Your task to perform on an android device: Show me the alarms in the clock app Image 0: 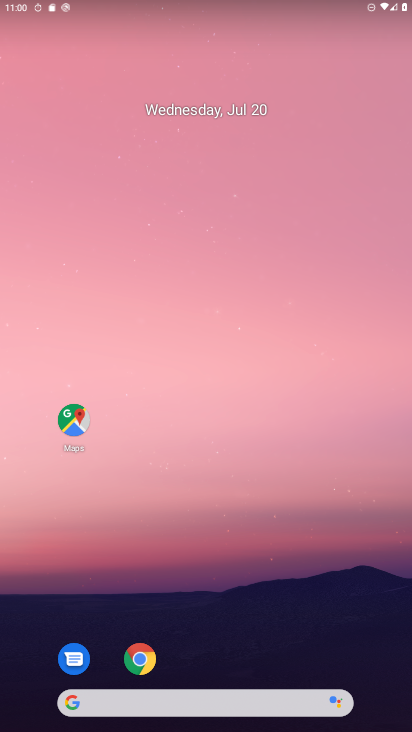
Step 0: drag from (308, 592) to (277, 49)
Your task to perform on an android device: Show me the alarms in the clock app Image 1: 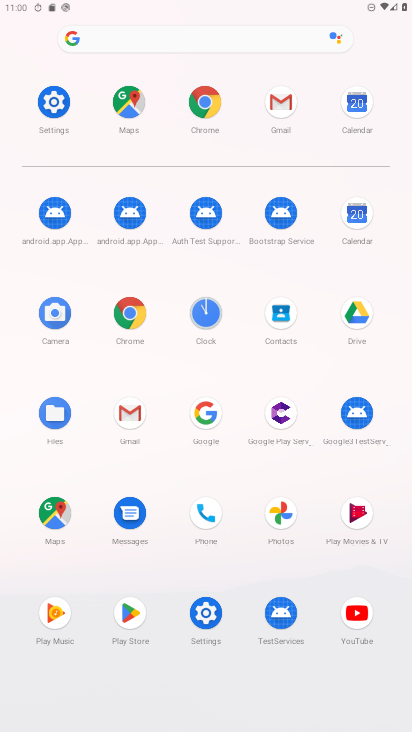
Step 1: click (207, 319)
Your task to perform on an android device: Show me the alarms in the clock app Image 2: 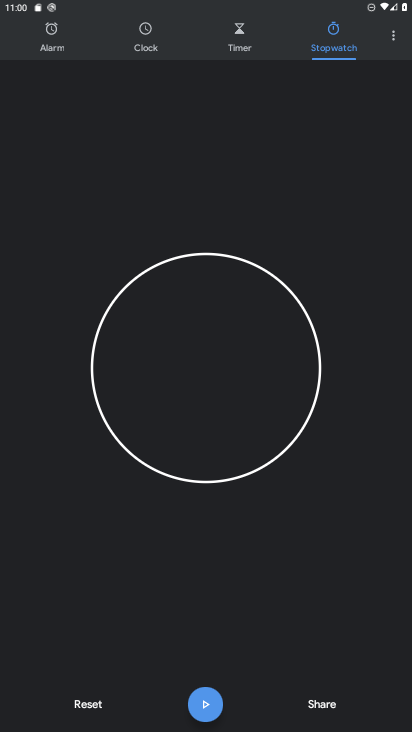
Step 2: click (52, 58)
Your task to perform on an android device: Show me the alarms in the clock app Image 3: 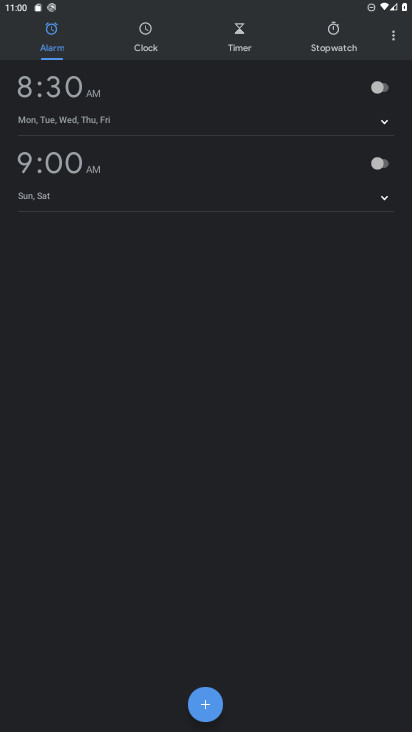
Step 3: task complete